Your task to perform on an android device: What's the weather today? Image 0: 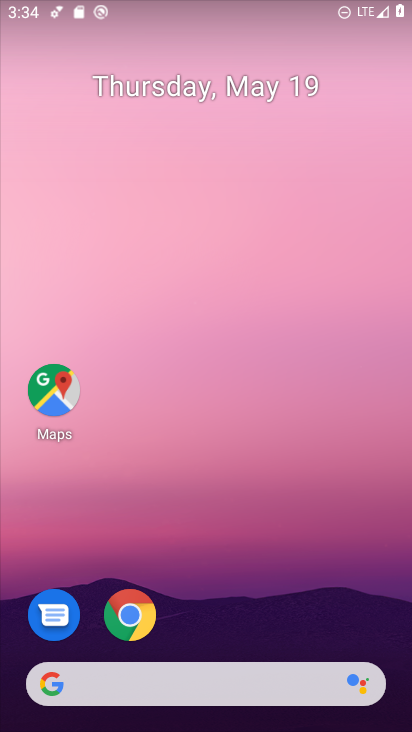
Step 0: click (316, 689)
Your task to perform on an android device: What's the weather today? Image 1: 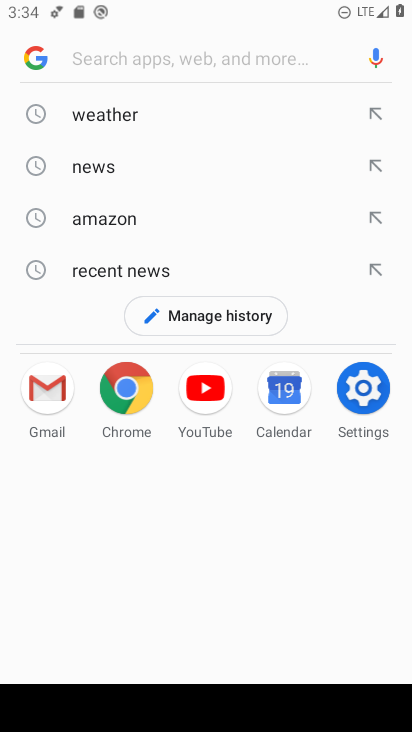
Step 1: type "What's the weather today?"
Your task to perform on an android device: What's the weather today? Image 2: 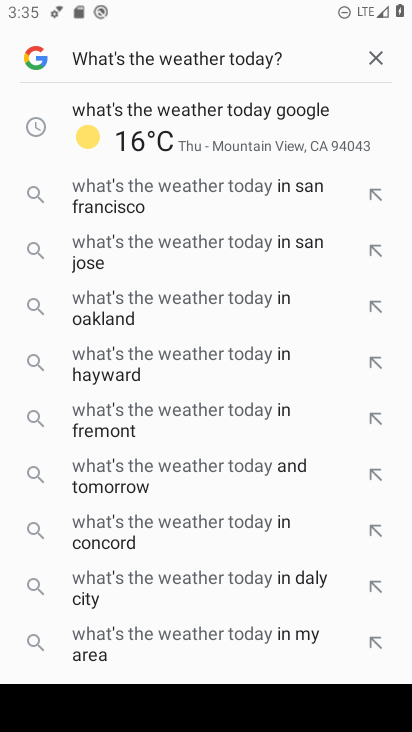
Step 2: click (229, 136)
Your task to perform on an android device: What's the weather today? Image 3: 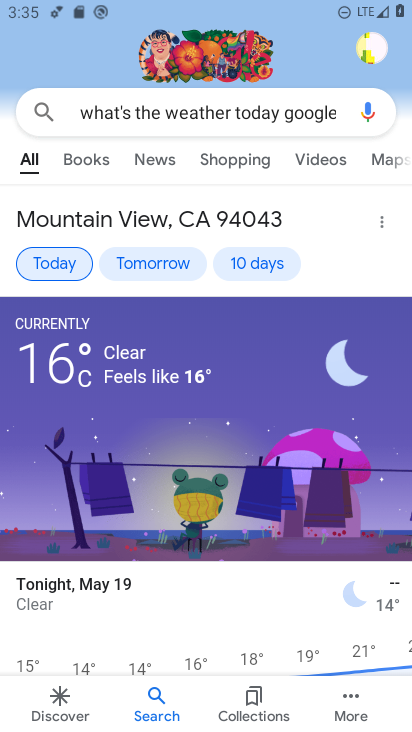
Step 3: task complete